Your task to perform on an android device: set an alarm Image 0: 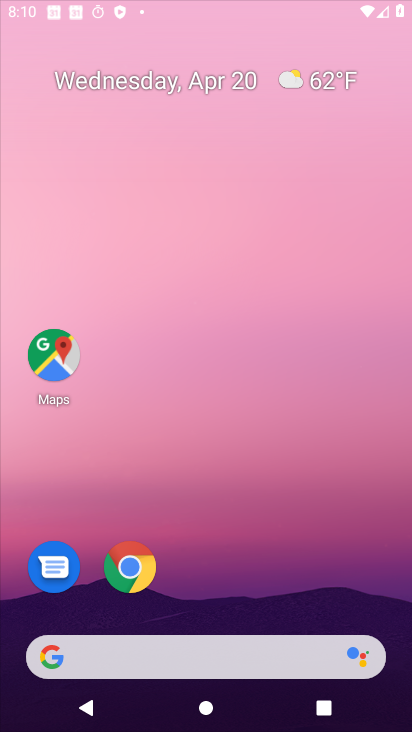
Step 0: press home button
Your task to perform on an android device: set an alarm Image 1: 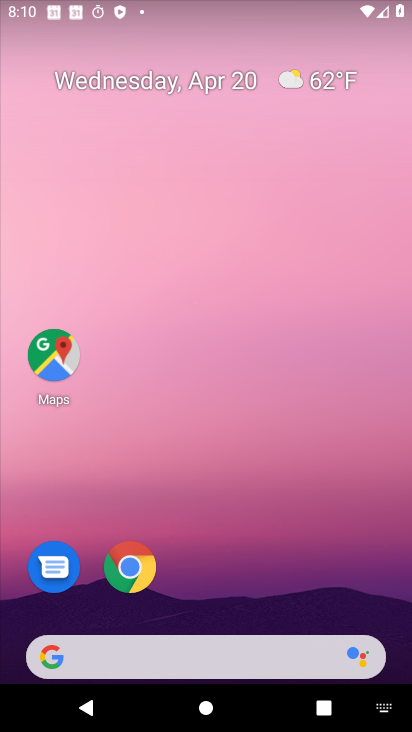
Step 1: drag from (354, 575) to (305, 14)
Your task to perform on an android device: set an alarm Image 2: 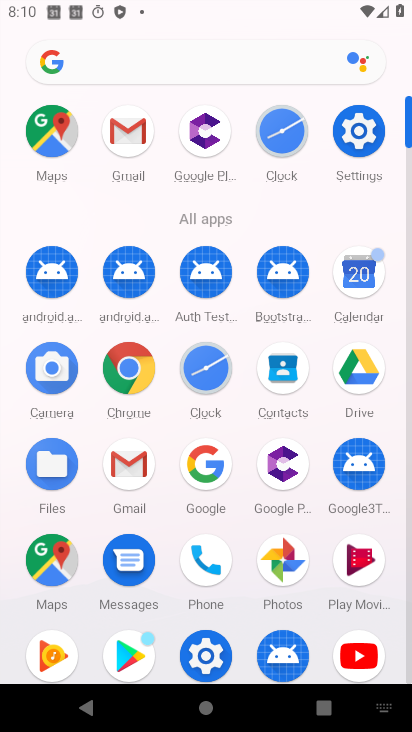
Step 2: click (276, 123)
Your task to perform on an android device: set an alarm Image 3: 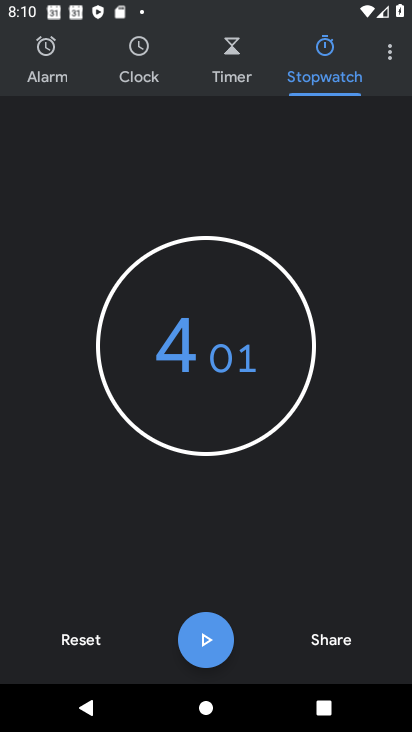
Step 3: click (51, 69)
Your task to perform on an android device: set an alarm Image 4: 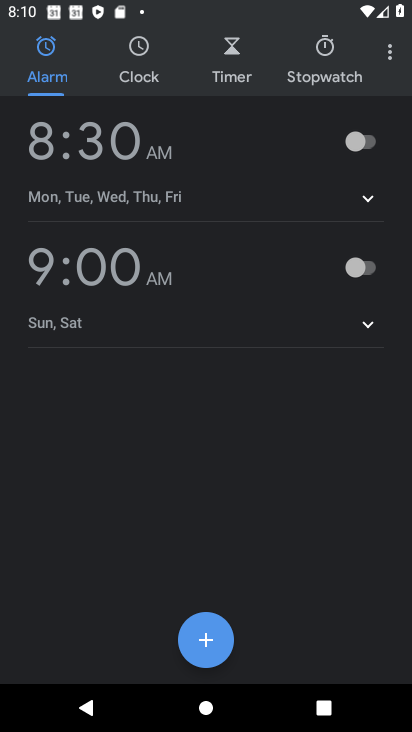
Step 4: click (208, 638)
Your task to perform on an android device: set an alarm Image 5: 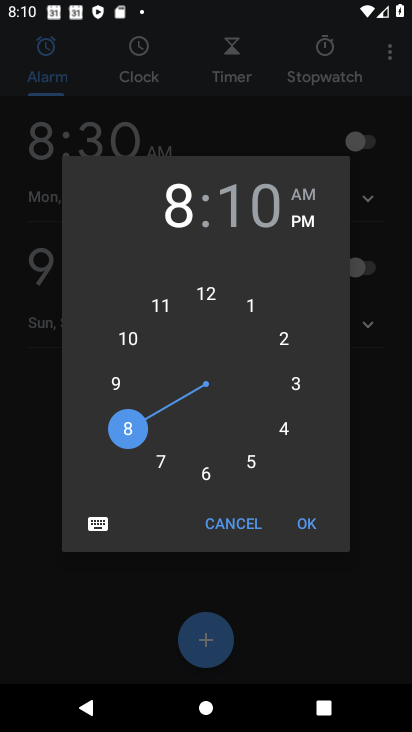
Step 5: click (206, 644)
Your task to perform on an android device: set an alarm Image 6: 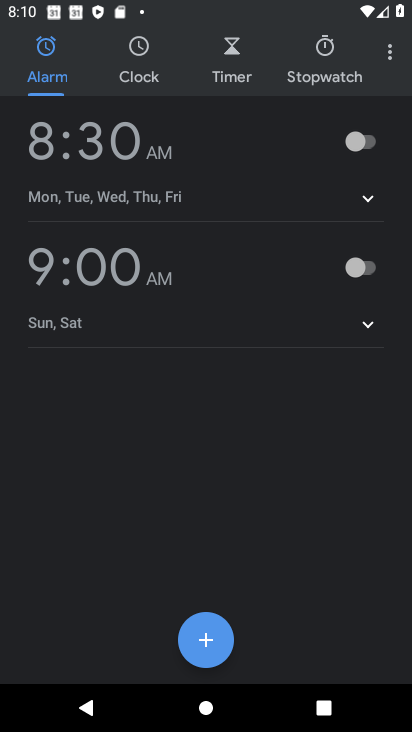
Step 6: click (206, 644)
Your task to perform on an android device: set an alarm Image 7: 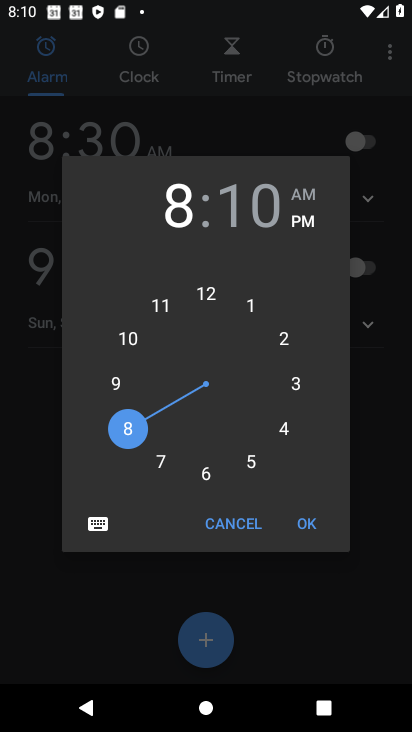
Step 7: click (99, 526)
Your task to perform on an android device: set an alarm Image 8: 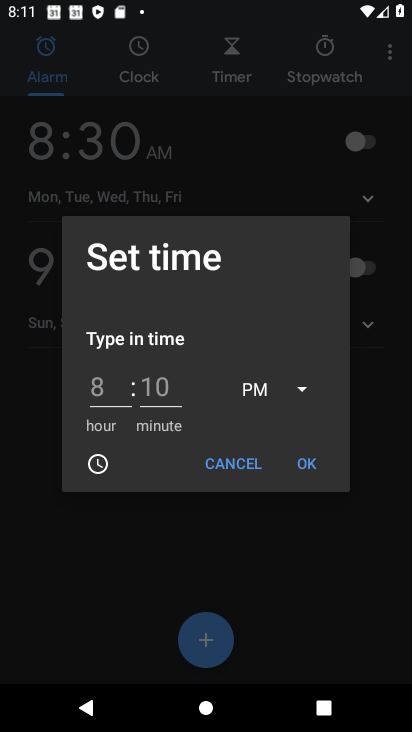
Step 8: click (303, 393)
Your task to perform on an android device: set an alarm Image 9: 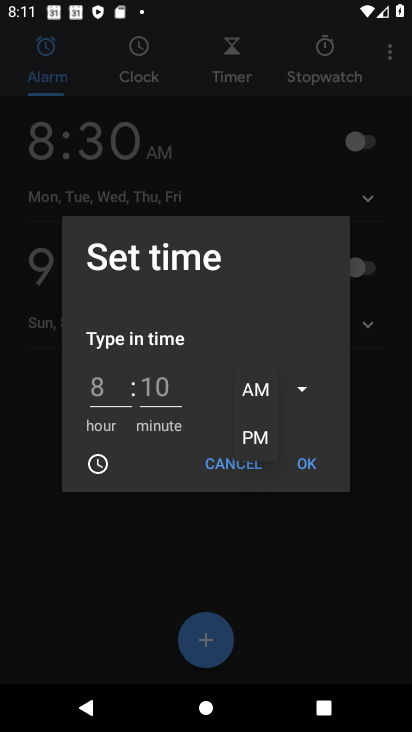
Step 9: click (265, 396)
Your task to perform on an android device: set an alarm Image 10: 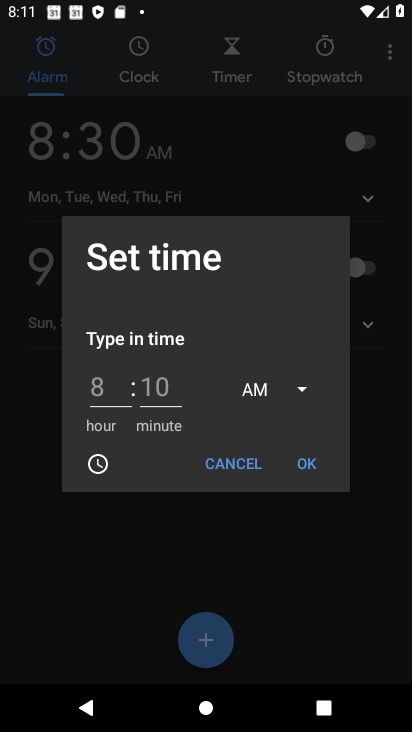
Step 10: click (310, 466)
Your task to perform on an android device: set an alarm Image 11: 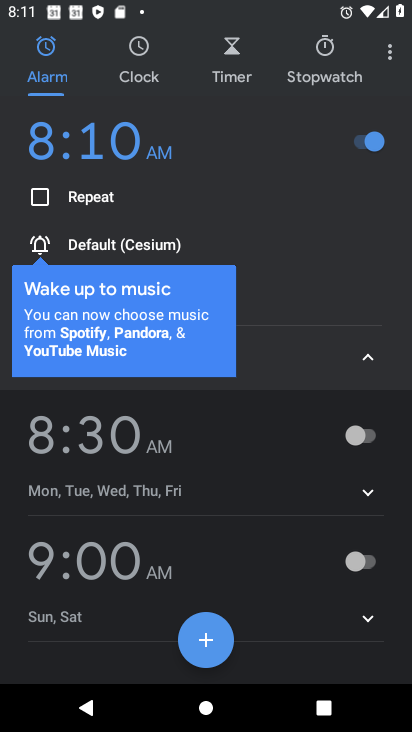
Step 11: task complete